Your task to perform on an android device: turn off notifications settings in the gmail app Image 0: 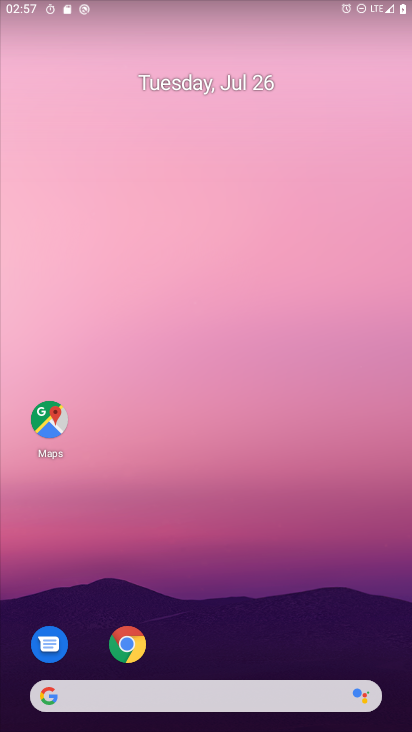
Step 0: drag from (257, 646) to (201, 5)
Your task to perform on an android device: turn off notifications settings in the gmail app Image 1: 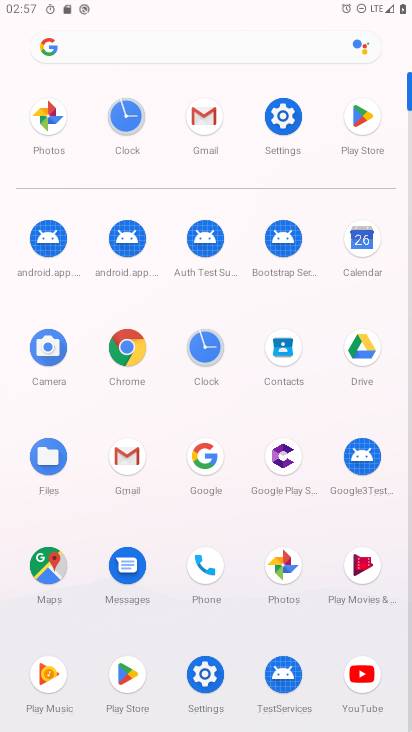
Step 1: click (205, 120)
Your task to perform on an android device: turn off notifications settings in the gmail app Image 2: 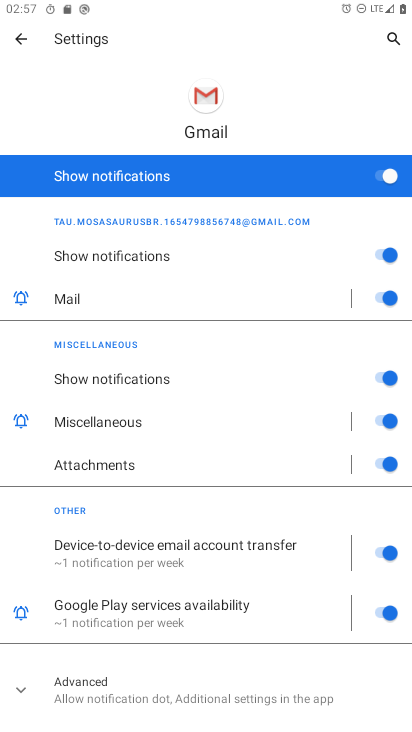
Step 2: click (388, 171)
Your task to perform on an android device: turn off notifications settings in the gmail app Image 3: 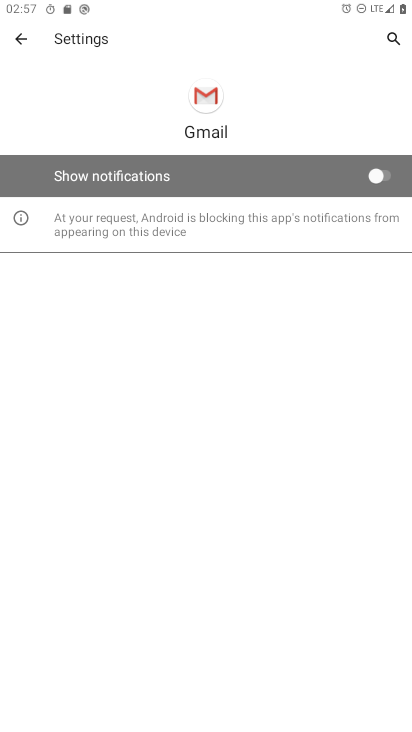
Step 3: task complete